Your task to perform on an android device: Open calendar and show me the first week of next month Image 0: 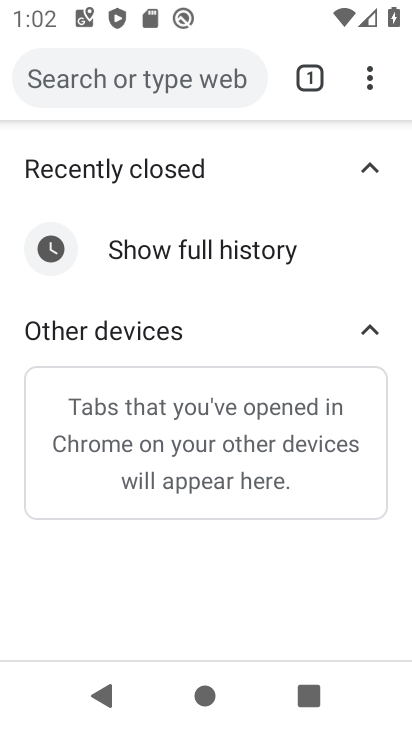
Step 0: press home button
Your task to perform on an android device: Open calendar and show me the first week of next month Image 1: 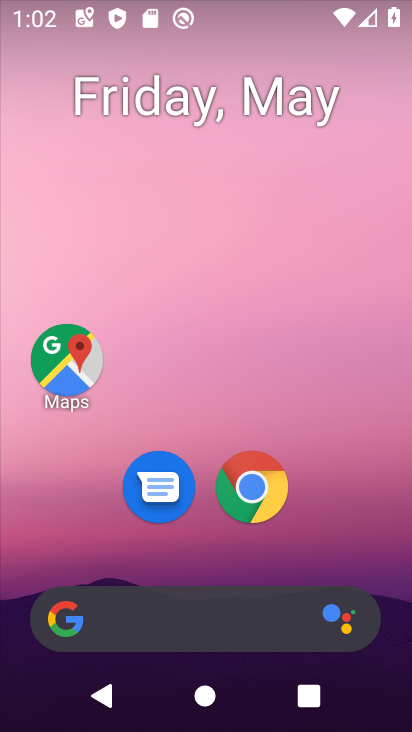
Step 1: click (219, 78)
Your task to perform on an android device: Open calendar and show me the first week of next month Image 2: 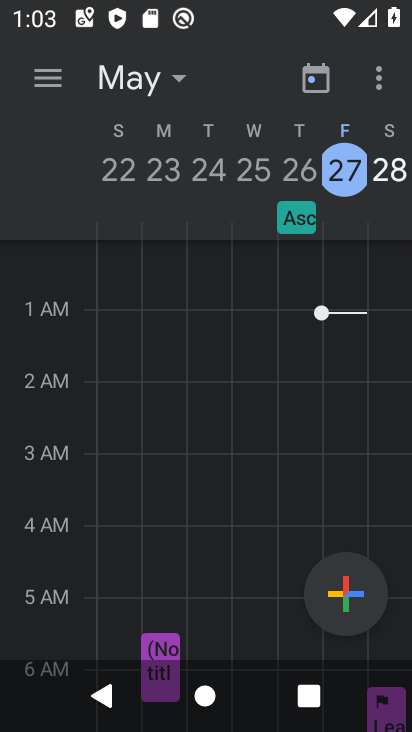
Step 2: click (138, 93)
Your task to perform on an android device: Open calendar and show me the first week of next month Image 3: 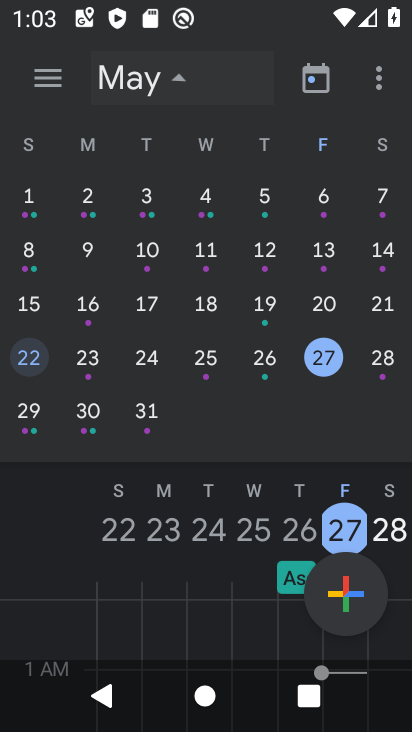
Step 3: click (138, 93)
Your task to perform on an android device: Open calendar and show me the first week of next month Image 4: 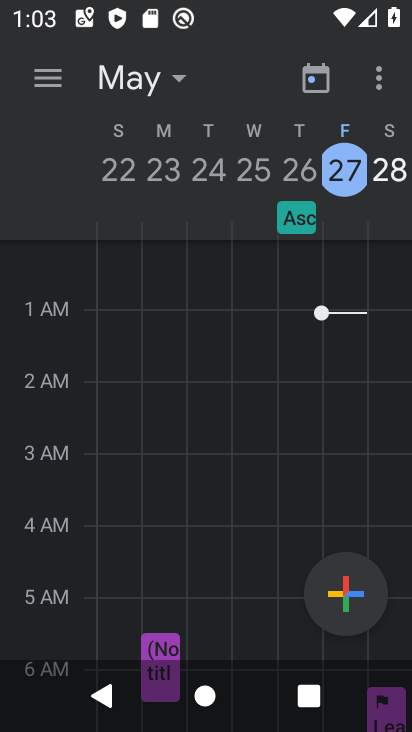
Step 4: click (144, 73)
Your task to perform on an android device: Open calendar and show me the first week of next month Image 5: 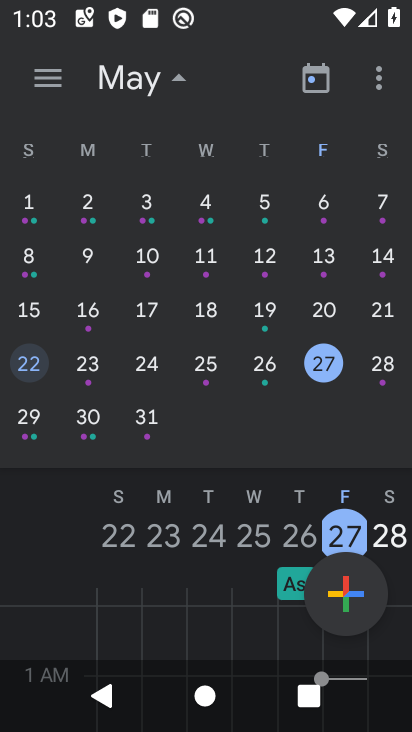
Step 5: task complete